Your task to perform on an android device: Open Reddit.com Image 0: 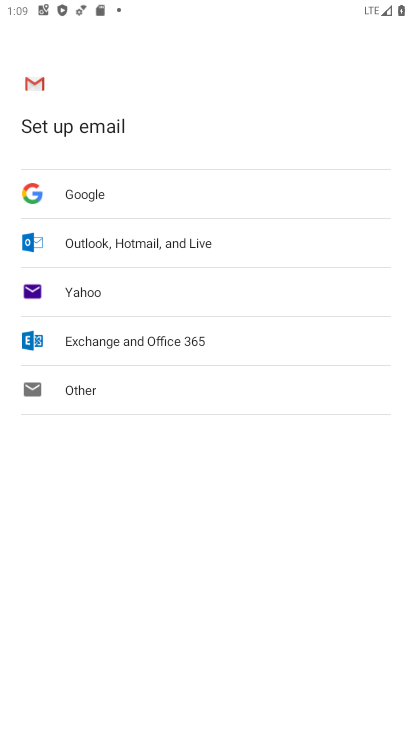
Step 0: press home button
Your task to perform on an android device: Open Reddit.com Image 1: 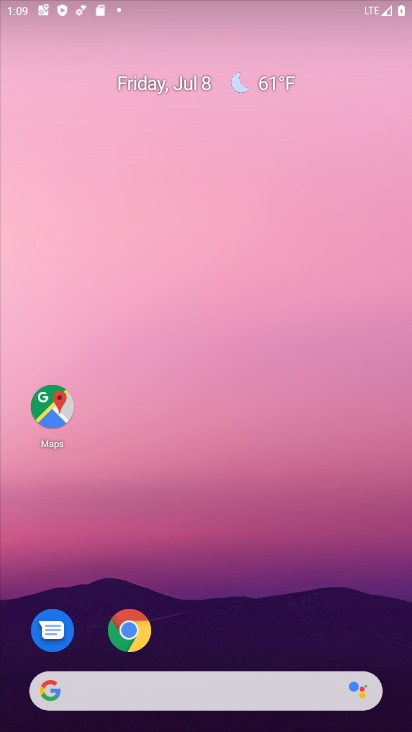
Step 1: drag from (394, 632) to (171, 37)
Your task to perform on an android device: Open Reddit.com Image 2: 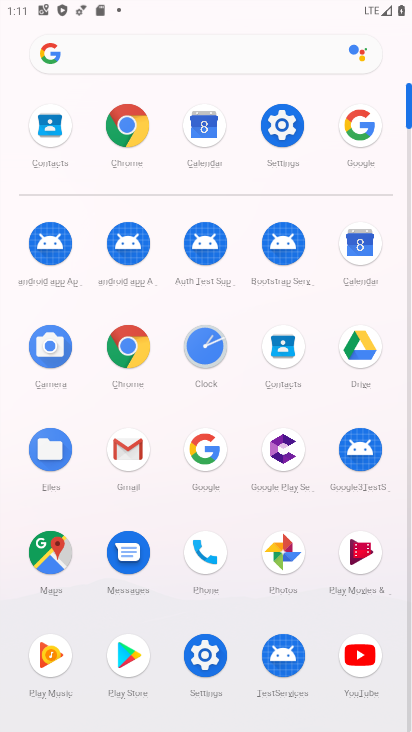
Step 2: click (217, 445)
Your task to perform on an android device: Open Reddit.com Image 3: 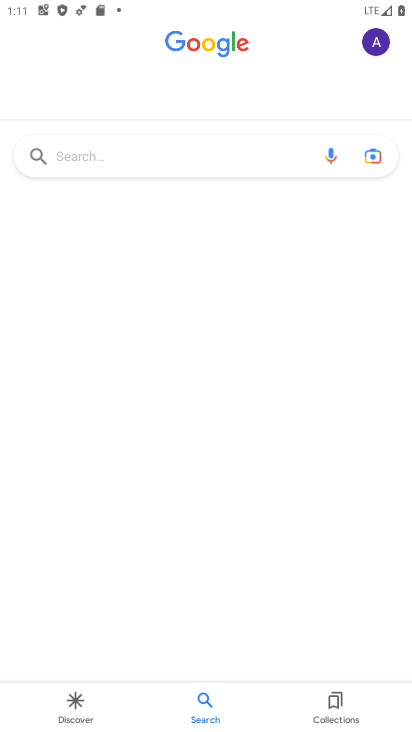
Step 3: click (86, 169)
Your task to perform on an android device: Open Reddit.com Image 4: 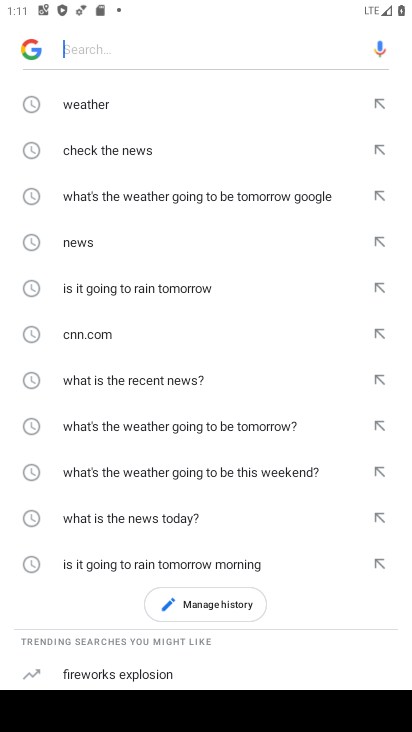
Step 4: type "Reddit.com"
Your task to perform on an android device: Open Reddit.com Image 5: 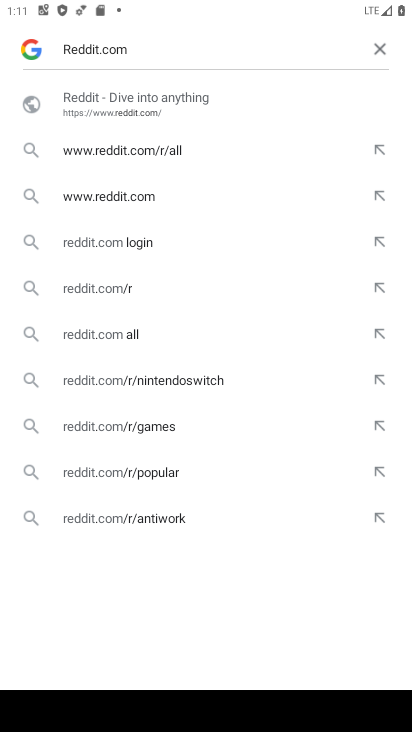
Step 5: click (86, 114)
Your task to perform on an android device: Open Reddit.com Image 6: 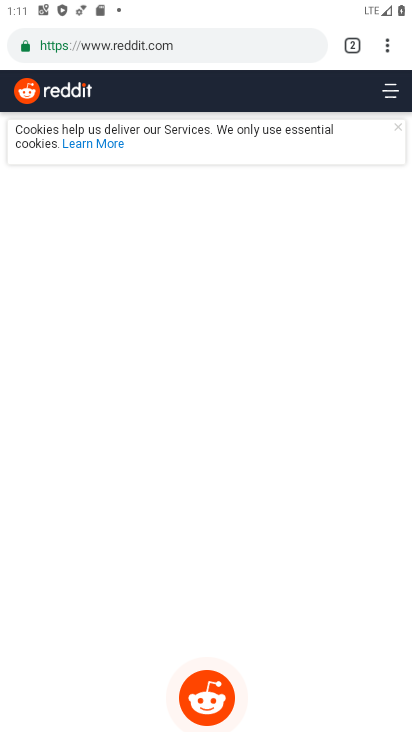
Step 6: task complete